Your task to perform on an android device: Open Chrome and go to settings Image 0: 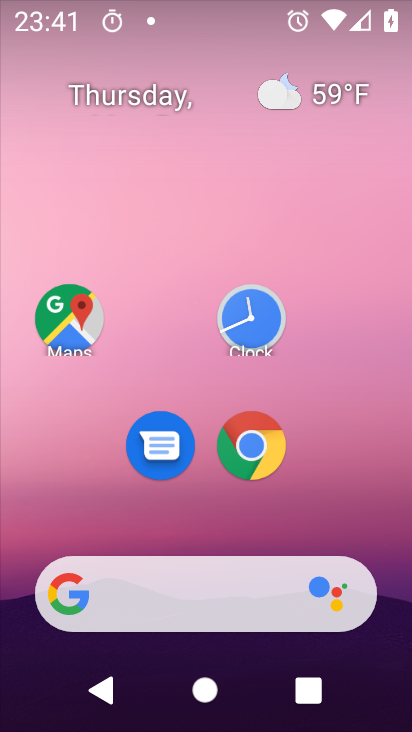
Step 0: click (257, 465)
Your task to perform on an android device: Open Chrome and go to settings Image 1: 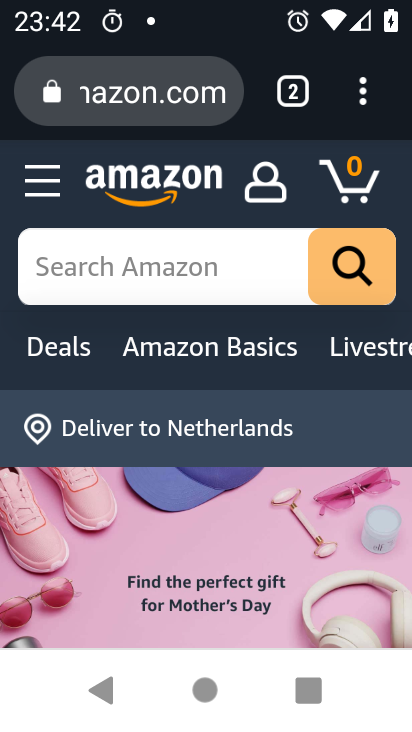
Step 1: task complete